Your task to perform on an android device: Do I have any events today? Image 0: 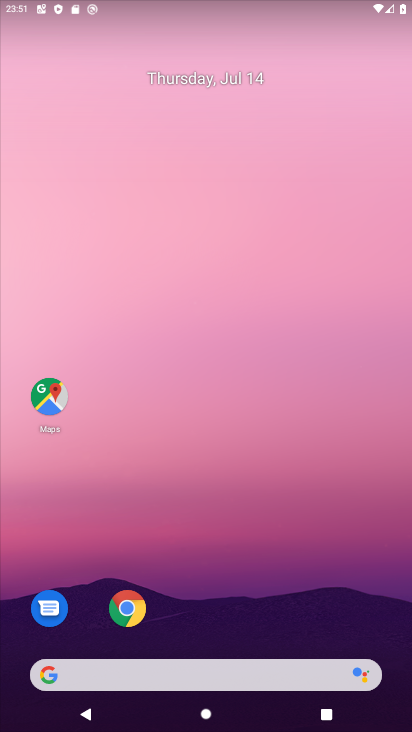
Step 0: drag from (43, 710) to (313, 3)
Your task to perform on an android device: Do I have any events today? Image 1: 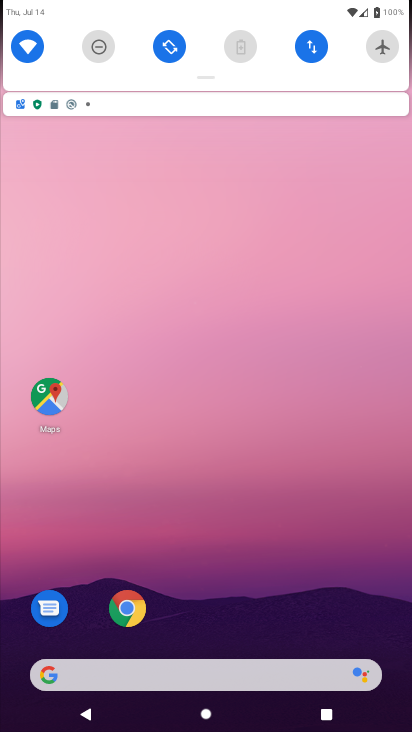
Step 1: drag from (15, 685) to (167, 195)
Your task to perform on an android device: Do I have any events today? Image 2: 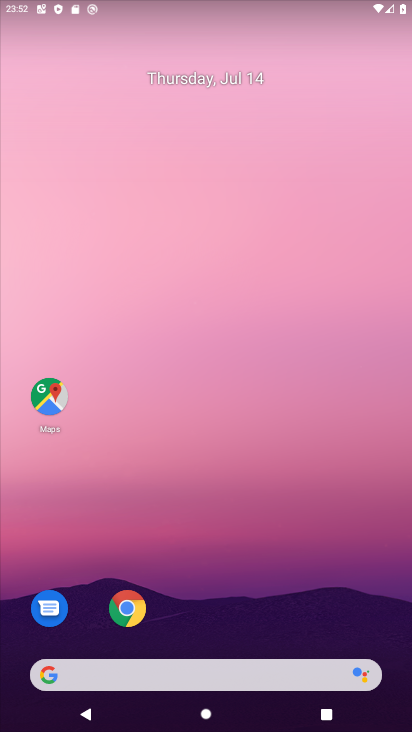
Step 2: drag from (36, 705) to (242, 64)
Your task to perform on an android device: Do I have any events today? Image 3: 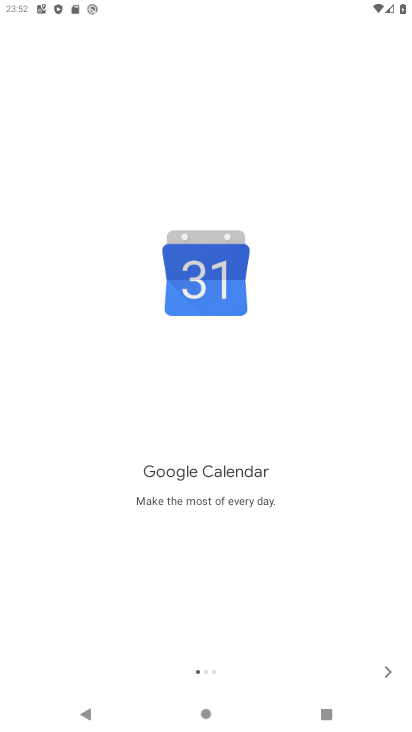
Step 3: click (390, 669)
Your task to perform on an android device: Do I have any events today? Image 4: 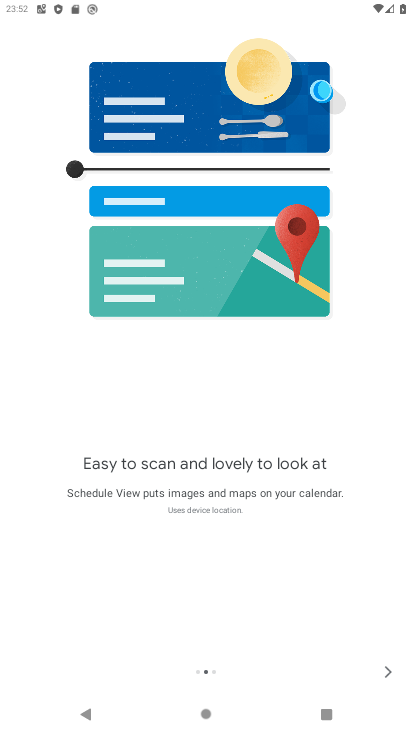
Step 4: click (392, 663)
Your task to perform on an android device: Do I have any events today? Image 5: 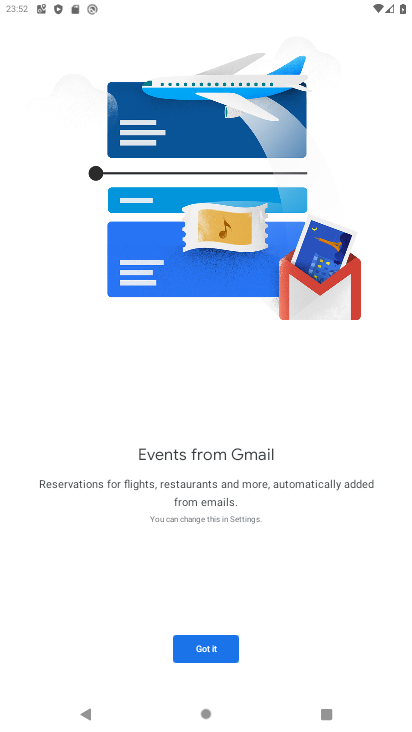
Step 5: click (224, 640)
Your task to perform on an android device: Do I have any events today? Image 6: 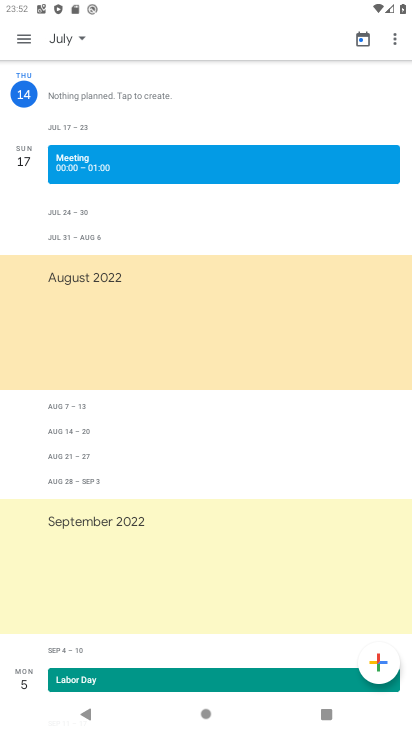
Step 6: click (65, 39)
Your task to perform on an android device: Do I have any events today? Image 7: 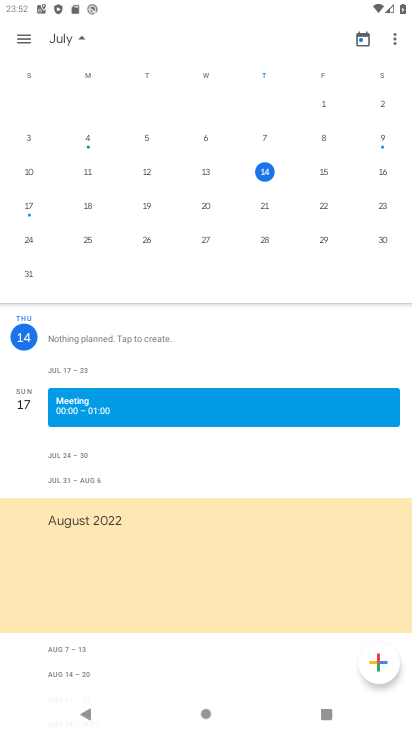
Step 7: task complete